Your task to perform on an android device: What is the recent news? Image 0: 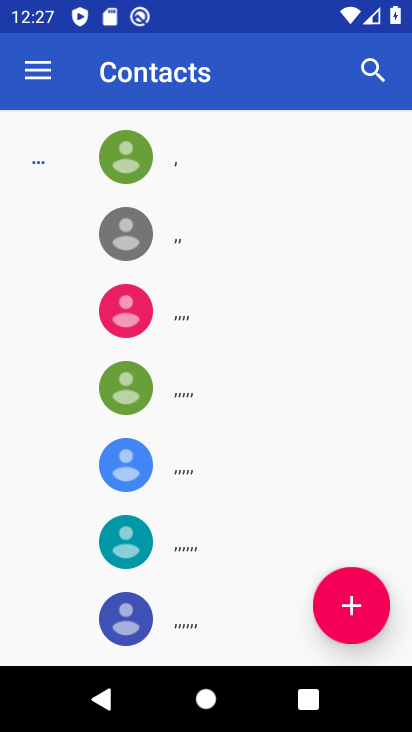
Step 0: press home button
Your task to perform on an android device: What is the recent news? Image 1: 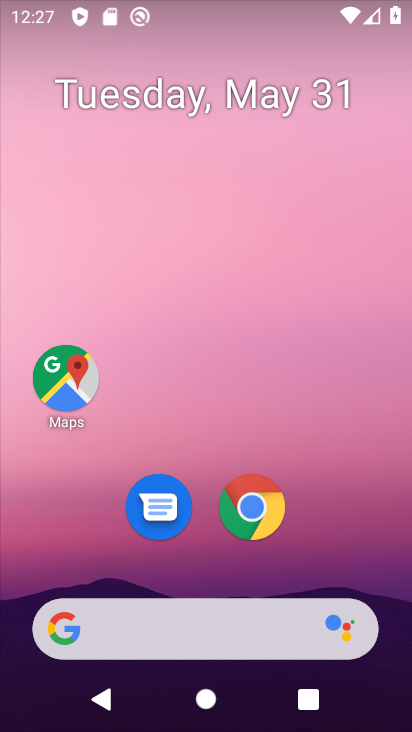
Step 1: click (243, 514)
Your task to perform on an android device: What is the recent news? Image 2: 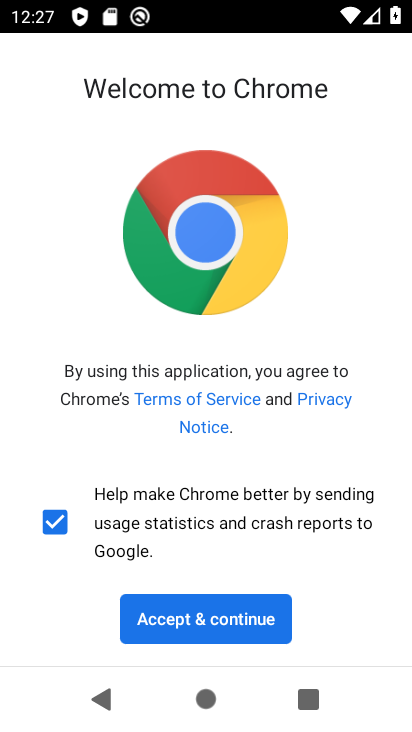
Step 2: click (178, 629)
Your task to perform on an android device: What is the recent news? Image 3: 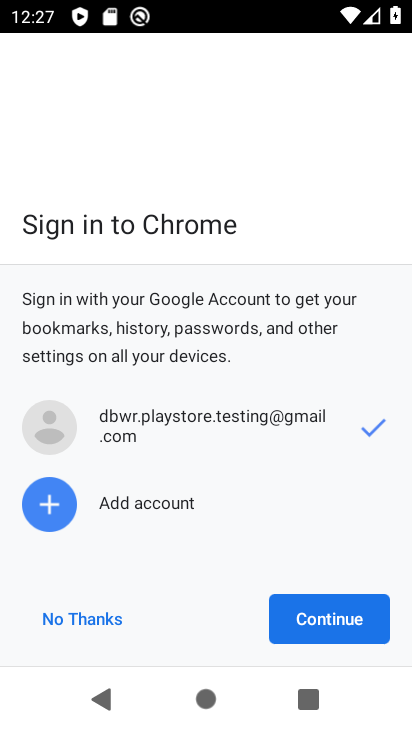
Step 3: click (344, 636)
Your task to perform on an android device: What is the recent news? Image 4: 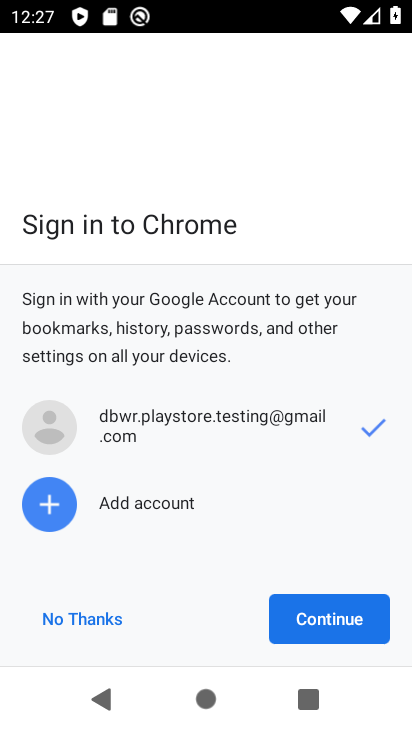
Step 4: click (344, 636)
Your task to perform on an android device: What is the recent news? Image 5: 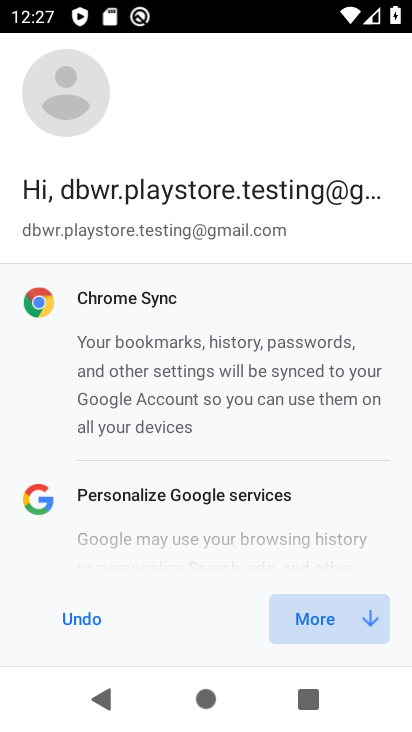
Step 5: click (344, 636)
Your task to perform on an android device: What is the recent news? Image 6: 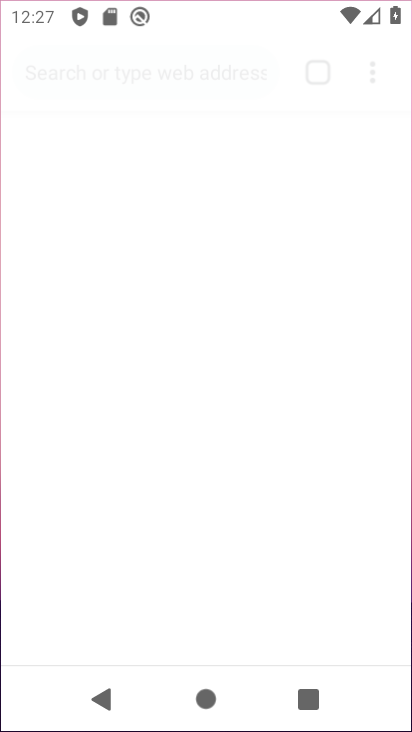
Step 6: click (344, 636)
Your task to perform on an android device: What is the recent news? Image 7: 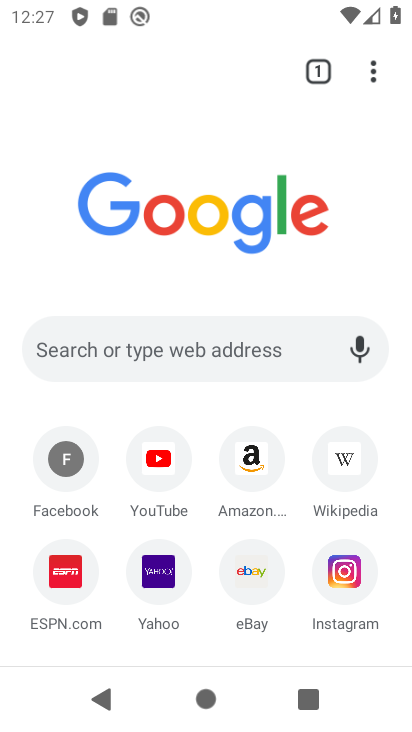
Step 7: click (270, 349)
Your task to perform on an android device: What is the recent news? Image 8: 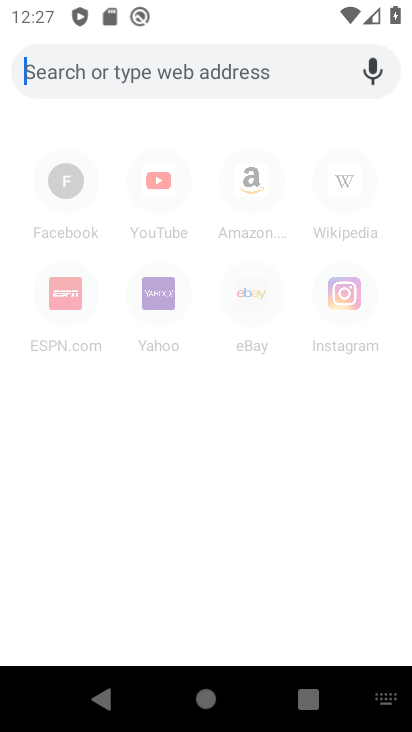
Step 8: type "What is the recent news?"
Your task to perform on an android device: What is the recent news? Image 9: 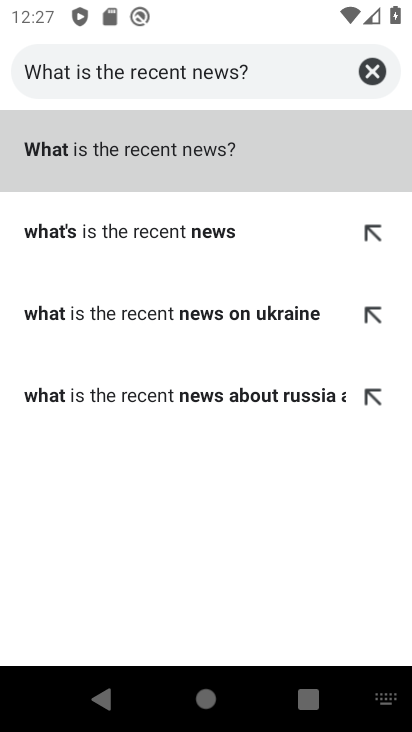
Step 9: click (50, 146)
Your task to perform on an android device: What is the recent news? Image 10: 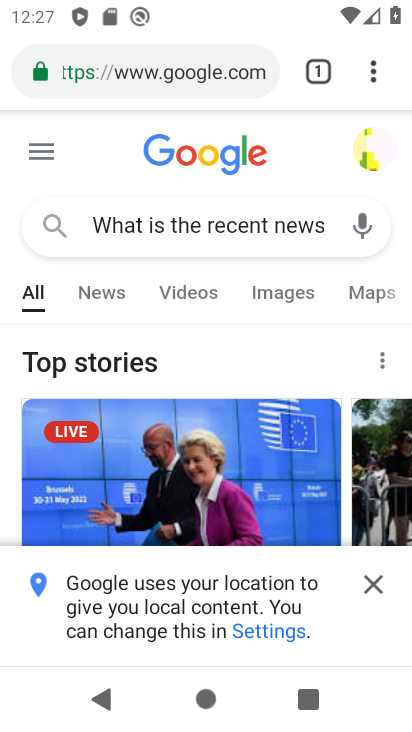
Step 10: task complete